Your task to perform on an android device: toggle translation in the chrome app Image 0: 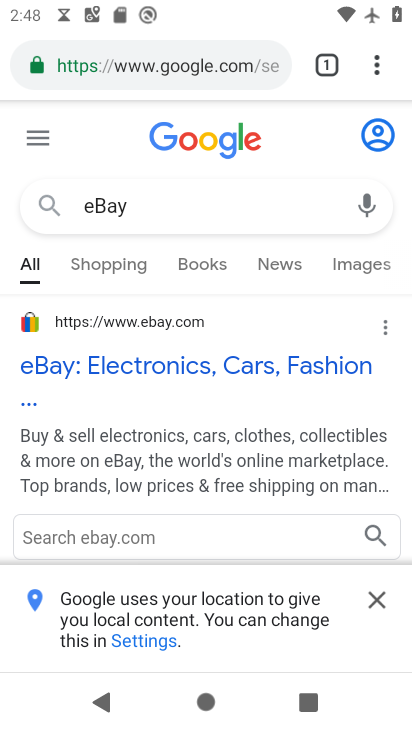
Step 0: press home button
Your task to perform on an android device: toggle translation in the chrome app Image 1: 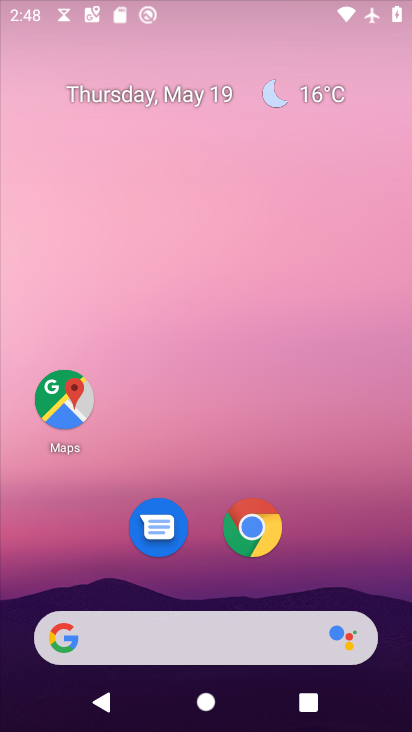
Step 1: click (271, 526)
Your task to perform on an android device: toggle translation in the chrome app Image 2: 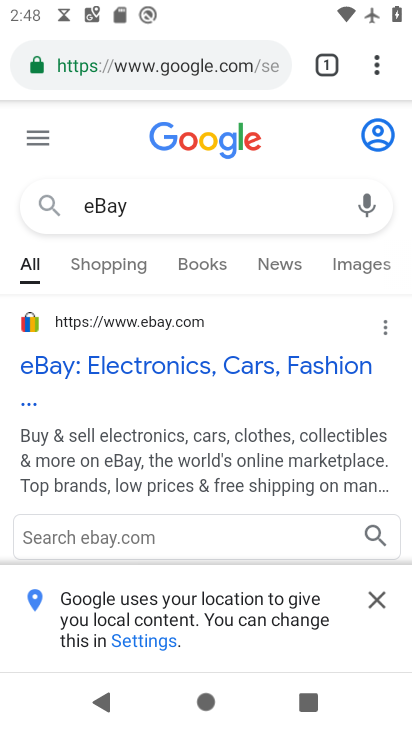
Step 2: click (374, 72)
Your task to perform on an android device: toggle translation in the chrome app Image 3: 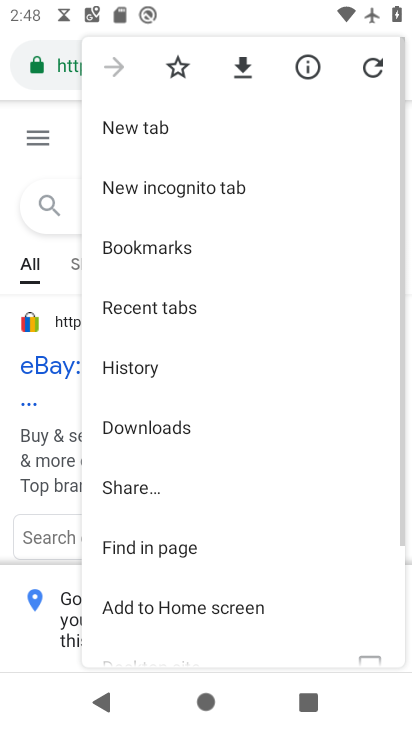
Step 3: drag from (244, 572) to (218, 191)
Your task to perform on an android device: toggle translation in the chrome app Image 4: 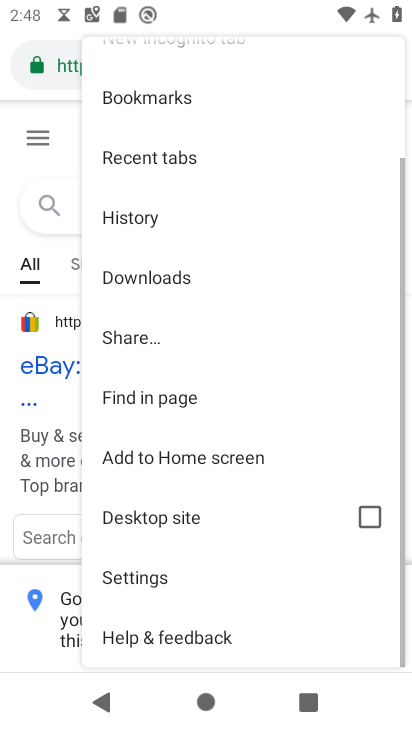
Step 4: click (198, 584)
Your task to perform on an android device: toggle translation in the chrome app Image 5: 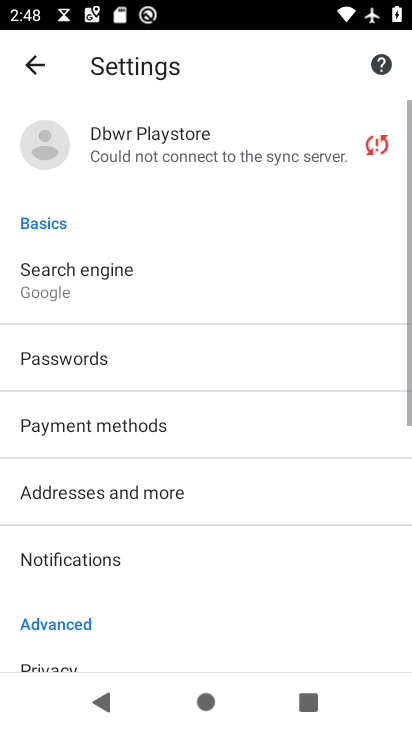
Step 5: drag from (186, 585) to (179, 173)
Your task to perform on an android device: toggle translation in the chrome app Image 6: 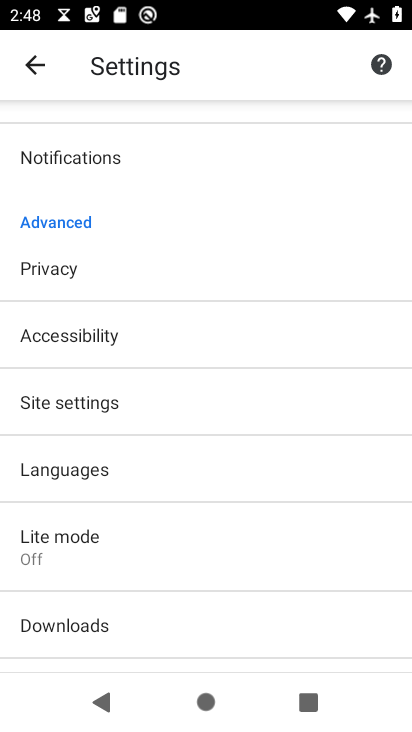
Step 6: click (159, 455)
Your task to perform on an android device: toggle translation in the chrome app Image 7: 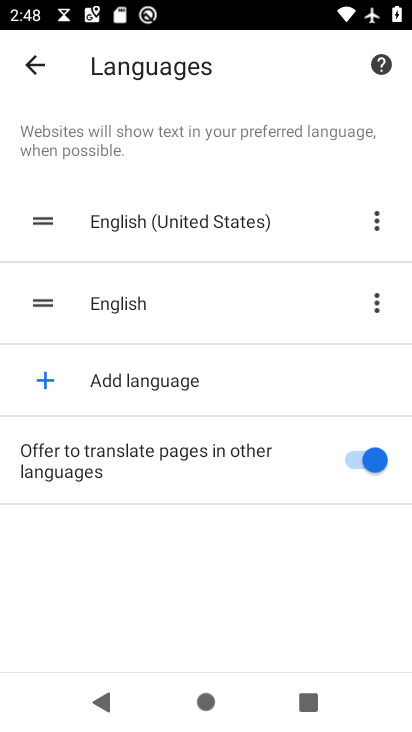
Step 7: click (354, 463)
Your task to perform on an android device: toggle translation in the chrome app Image 8: 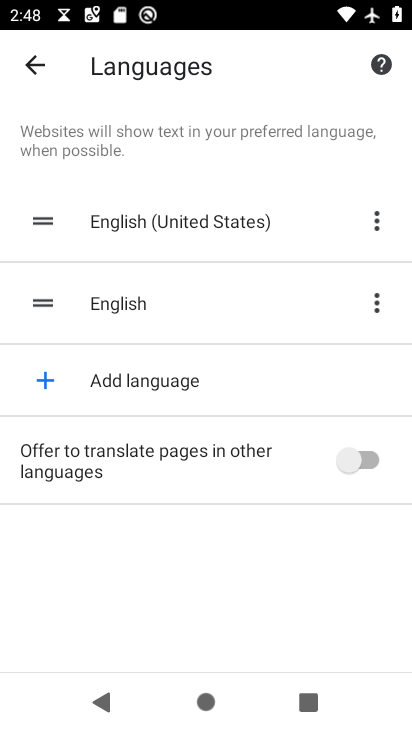
Step 8: task complete